Your task to perform on an android device: check the backup settings in the google photos Image 0: 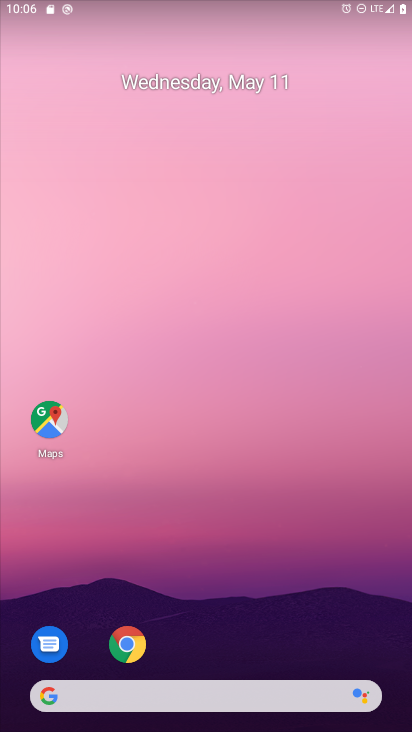
Step 0: drag from (201, 601) to (130, 85)
Your task to perform on an android device: check the backup settings in the google photos Image 1: 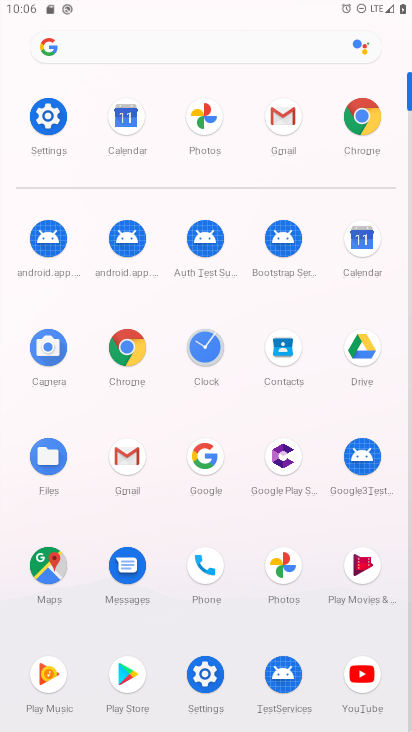
Step 1: click (203, 119)
Your task to perform on an android device: check the backup settings in the google photos Image 2: 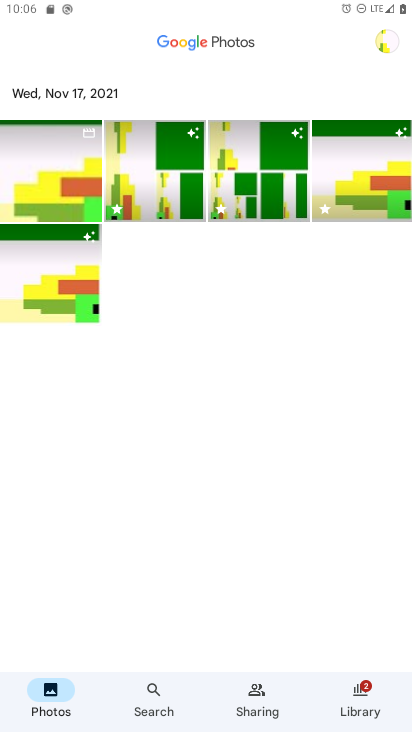
Step 2: click (383, 41)
Your task to perform on an android device: check the backup settings in the google photos Image 3: 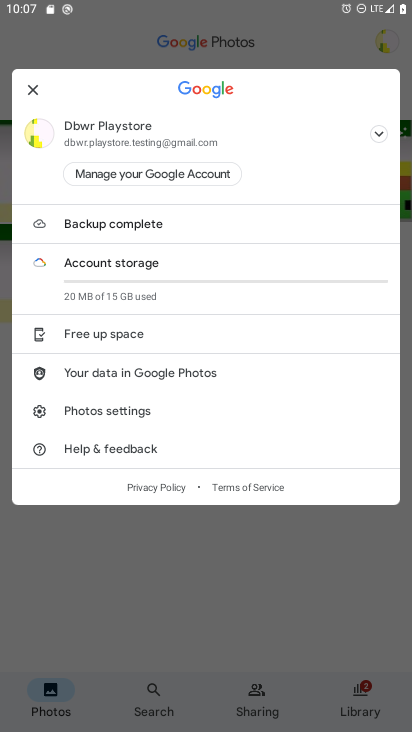
Step 3: click (187, 573)
Your task to perform on an android device: check the backup settings in the google photos Image 4: 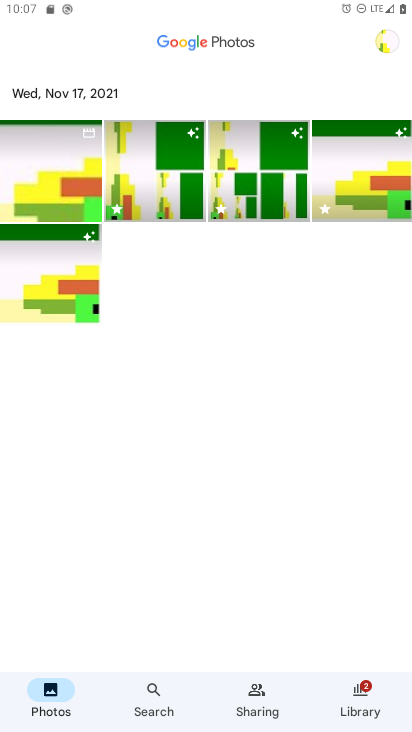
Step 4: click (358, 687)
Your task to perform on an android device: check the backup settings in the google photos Image 5: 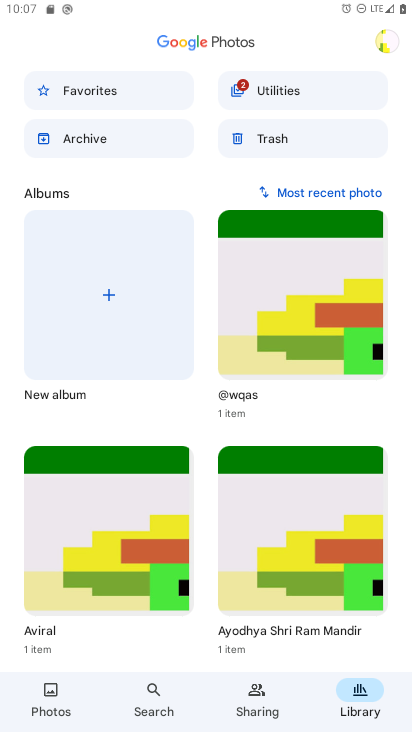
Step 5: drag from (135, 417) to (92, 9)
Your task to perform on an android device: check the backup settings in the google photos Image 6: 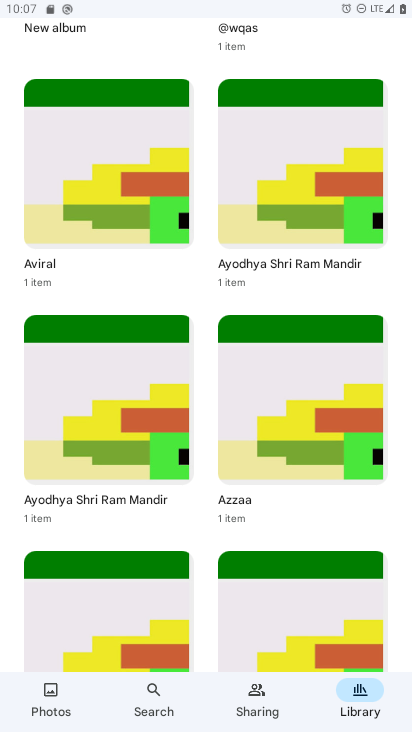
Step 6: drag from (264, 152) to (259, 456)
Your task to perform on an android device: check the backup settings in the google photos Image 7: 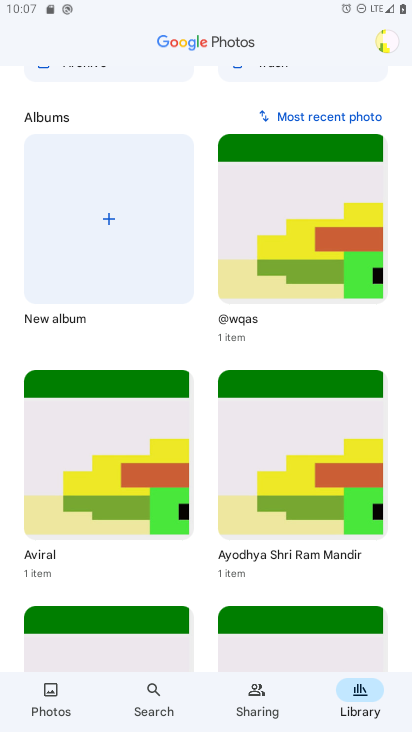
Step 7: drag from (258, 183) to (194, 494)
Your task to perform on an android device: check the backup settings in the google photos Image 8: 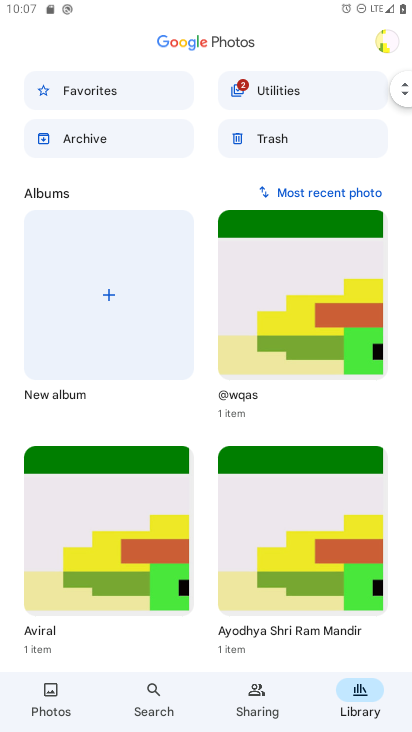
Step 8: click (381, 39)
Your task to perform on an android device: check the backup settings in the google photos Image 9: 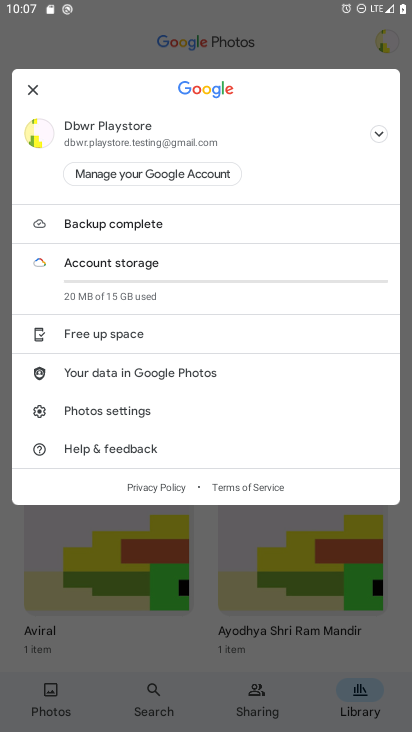
Step 9: click (95, 412)
Your task to perform on an android device: check the backup settings in the google photos Image 10: 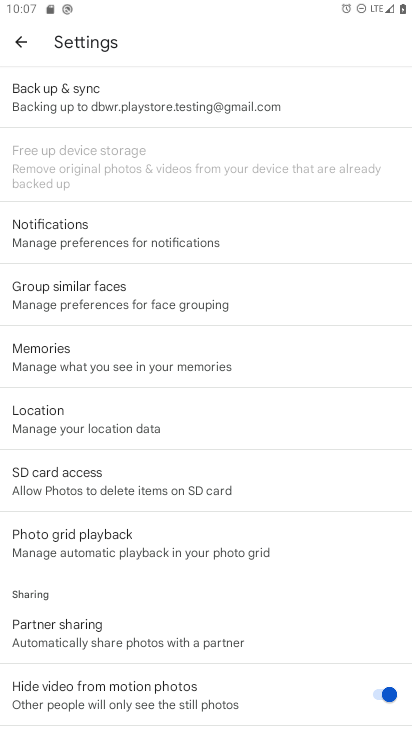
Step 10: click (58, 93)
Your task to perform on an android device: check the backup settings in the google photos Image 11: 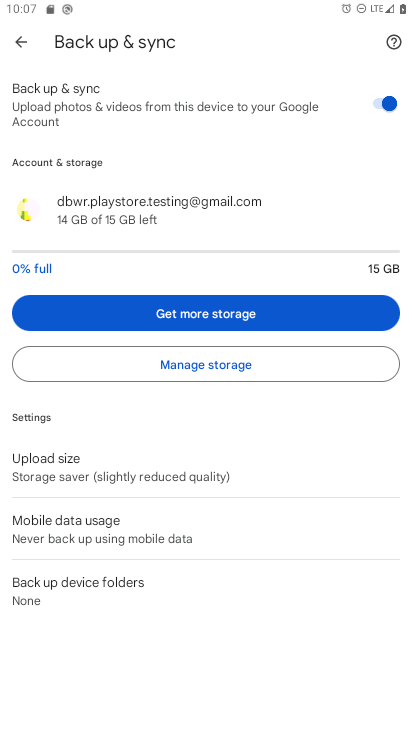
Step 11: task complete